Your task to perform on an android device: find snoozed emails in the gmail app Image 0: 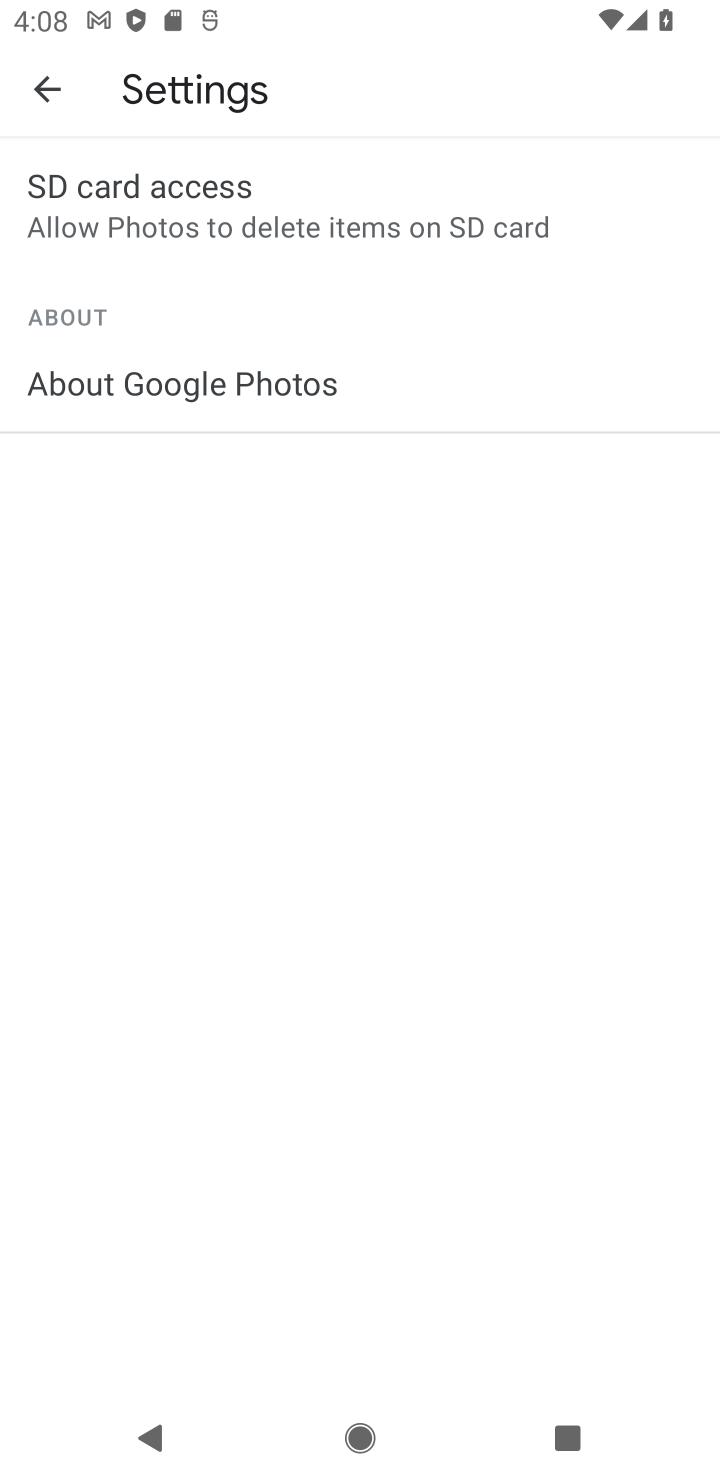
Step 0: press home button
Your task to perform on an android device: find snoozed emails in the gmail app Image 1: 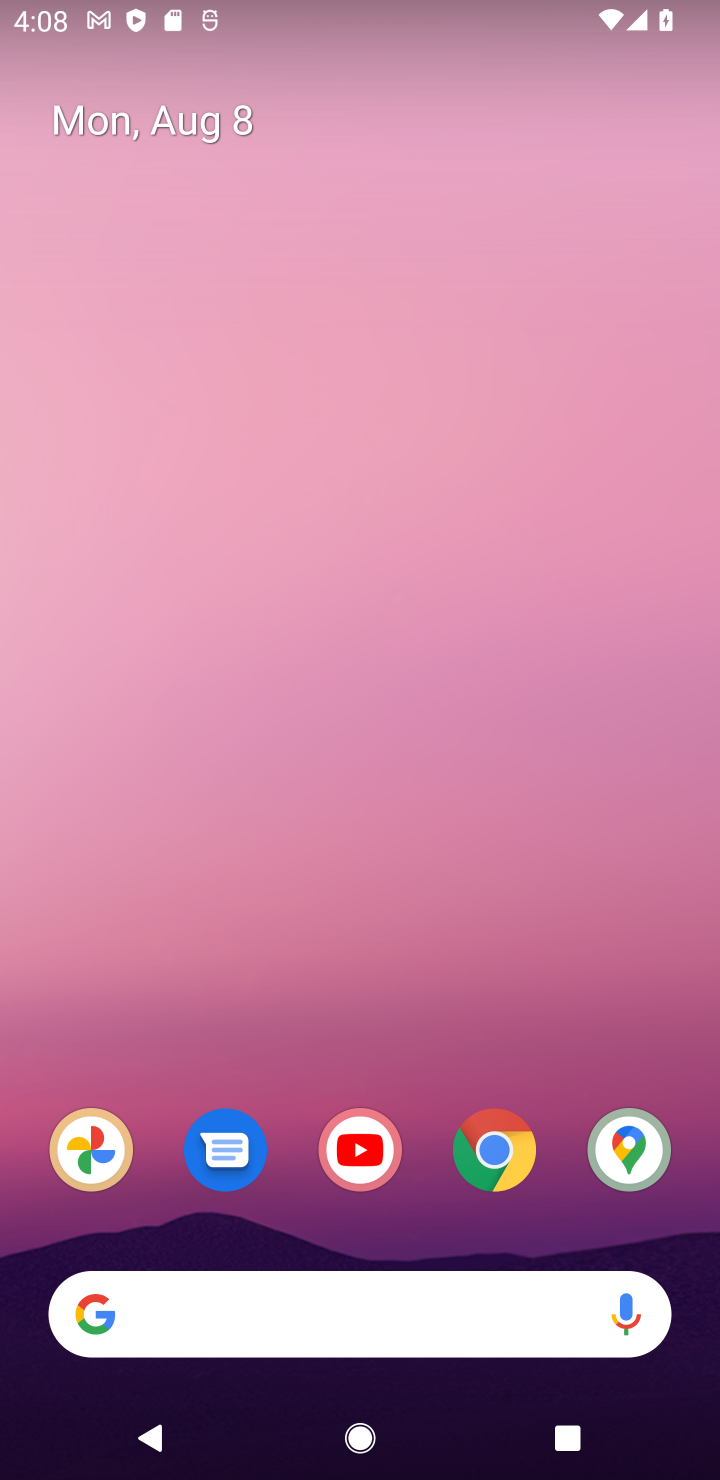
Step 1: drag from (438, 1227) to (336, 99)
Your task to perform on an android device: find snoozed emails in the gmail app Image 2: 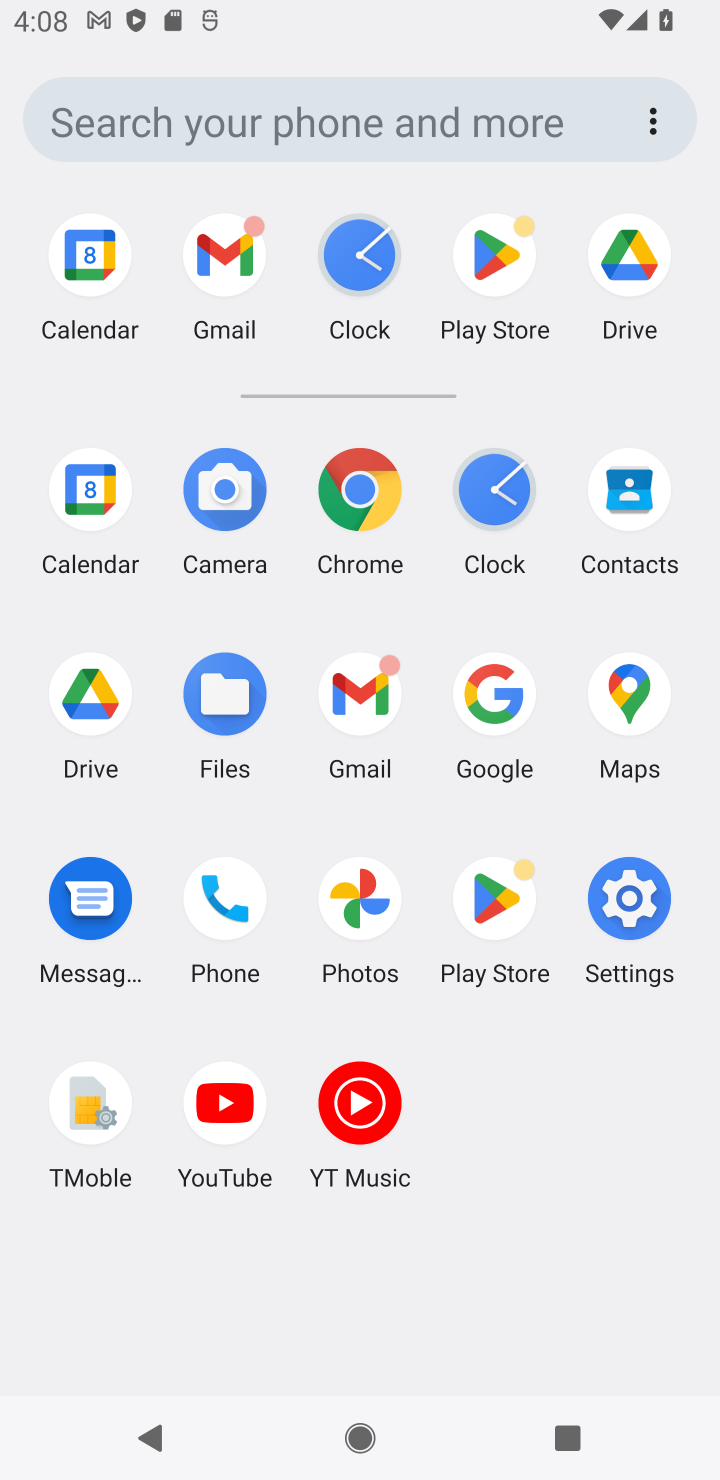
Step 2: click (226, 251)
Your task to perform on an android device: find snoozed emails in the gmail app Image 3: 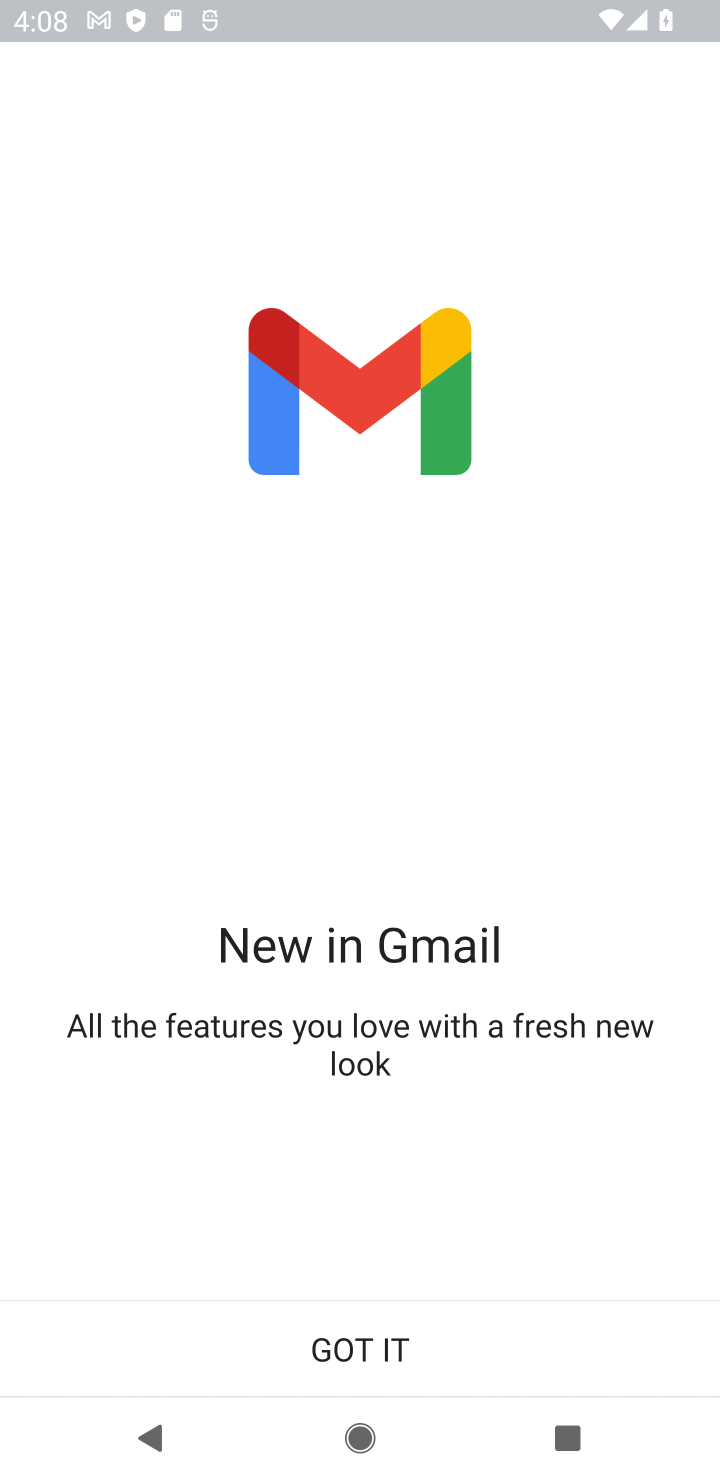
Step 3: click (334, 1373)
Your task to perform on an android device: find snoozed emails in the gmail app Image 4: 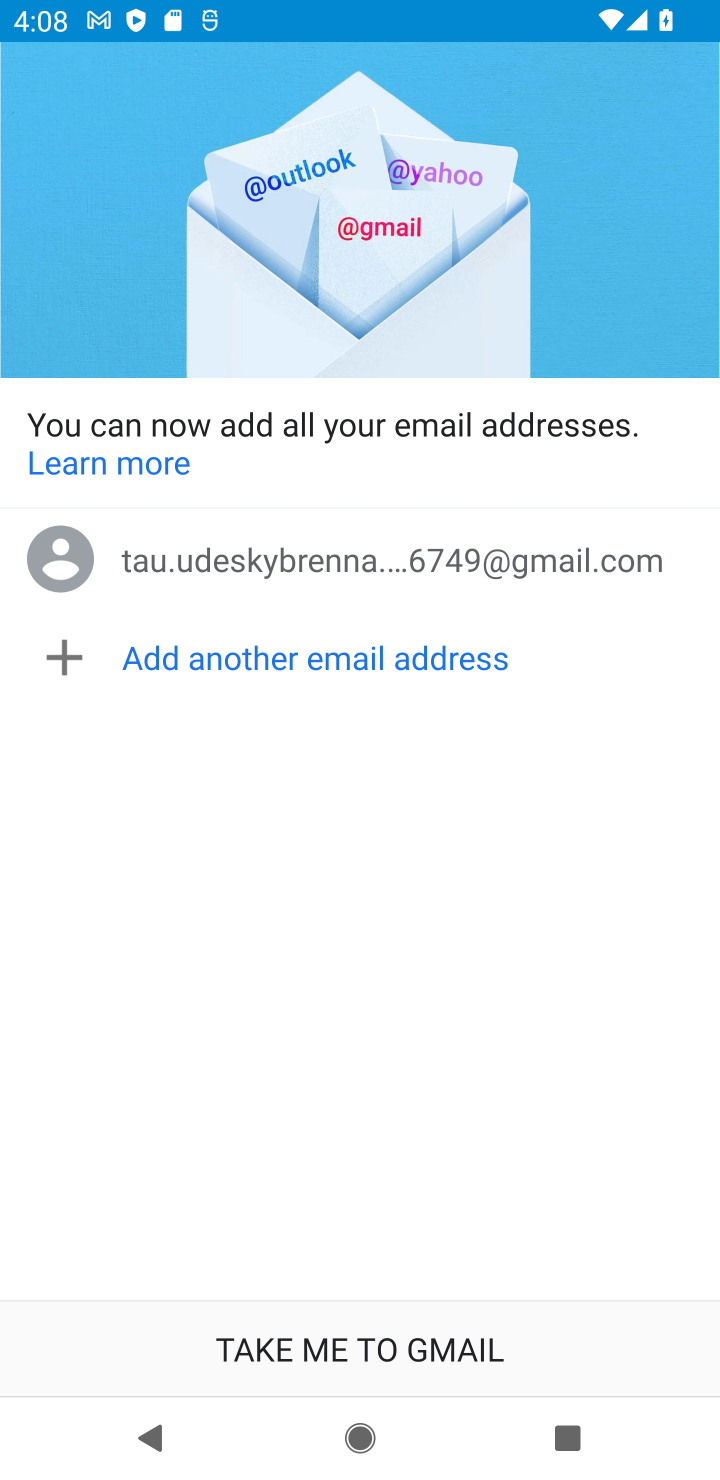
Step 4: click (356, 1355)
Your task to perform on an android device: find snoozed emails in the gmail app Image 5: 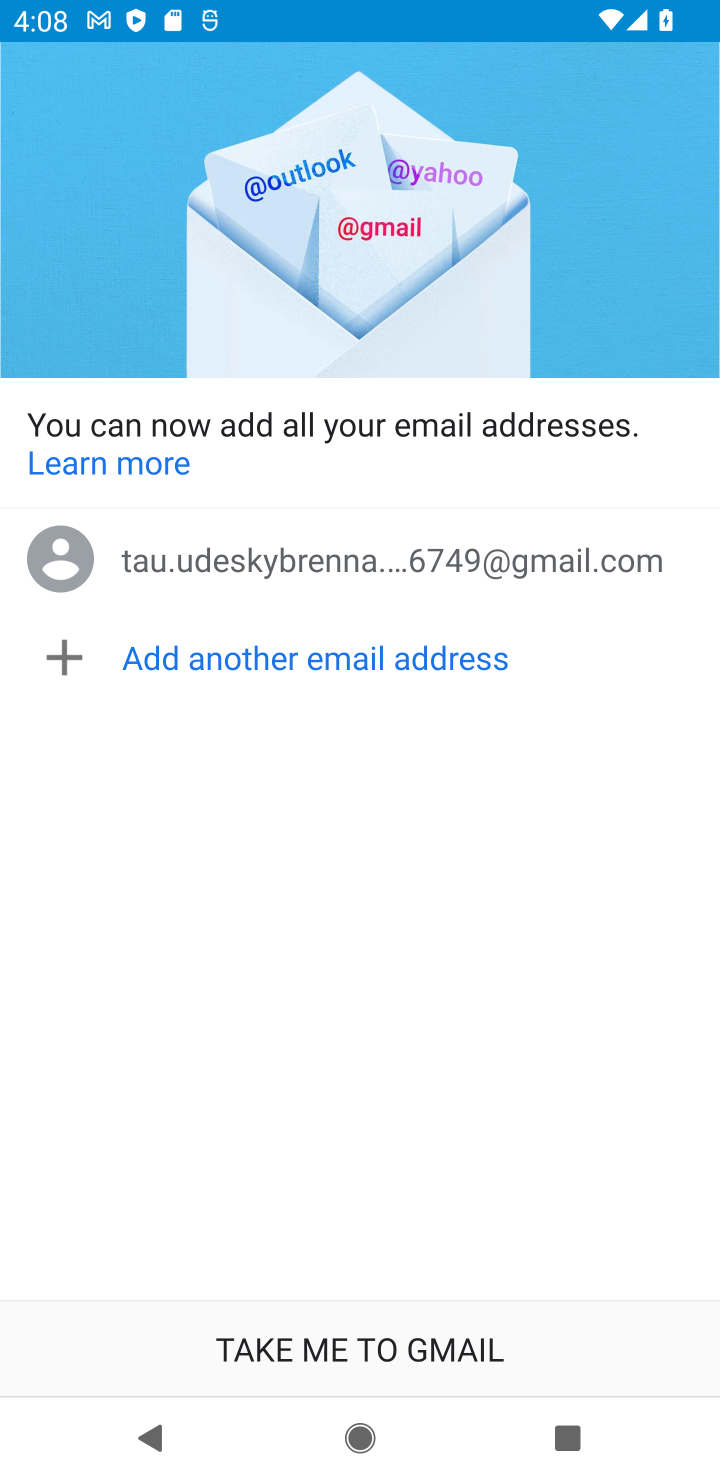
Step 5: task complete